Your task to perform on an android device: Where can I buy a nice beach hat? Image 0: 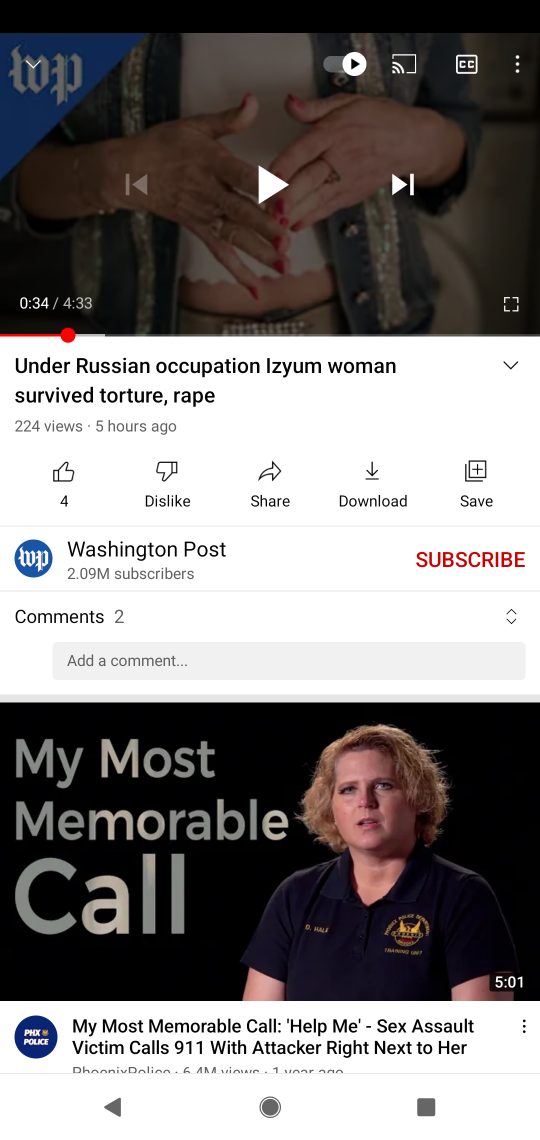
Step 0: press home button
Your task to perform on an android device: Where can I buy a nice beach hat? Image 1: 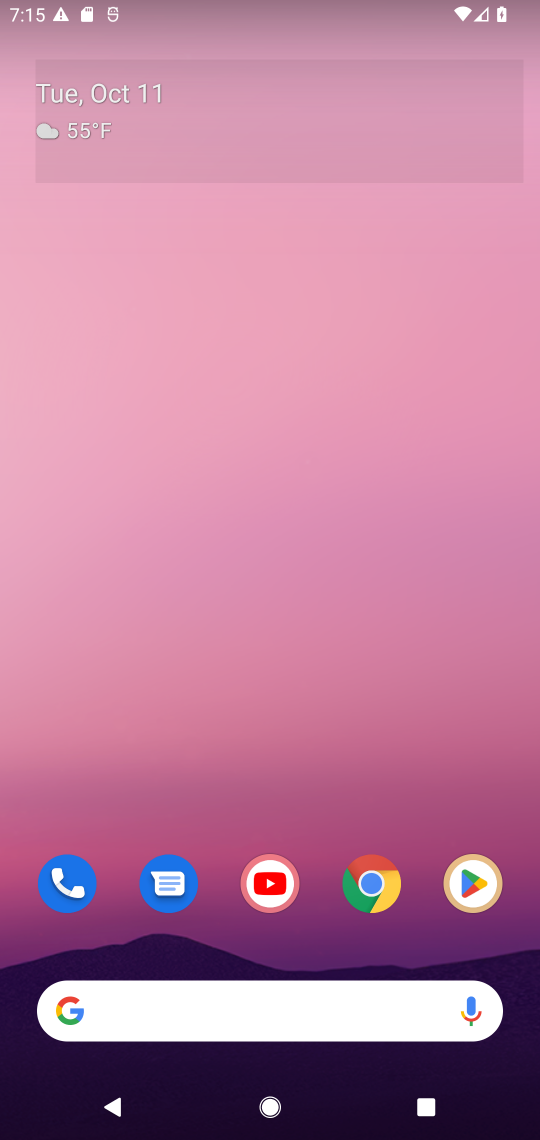
Step 1: drag from (316, 969) to (293, 70)
Your task to perform on an android device: Where can I buy a nice beach hat? Image 2: 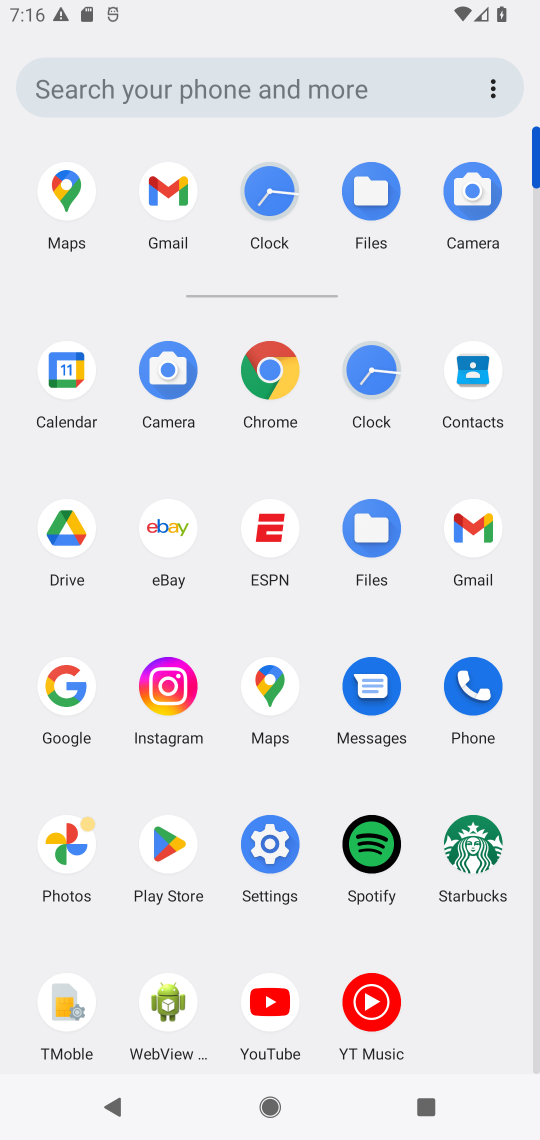
Step 2: click (261, 366)
Your task to perform on an android device: Where can I buy a nice beach hat? Image 3: 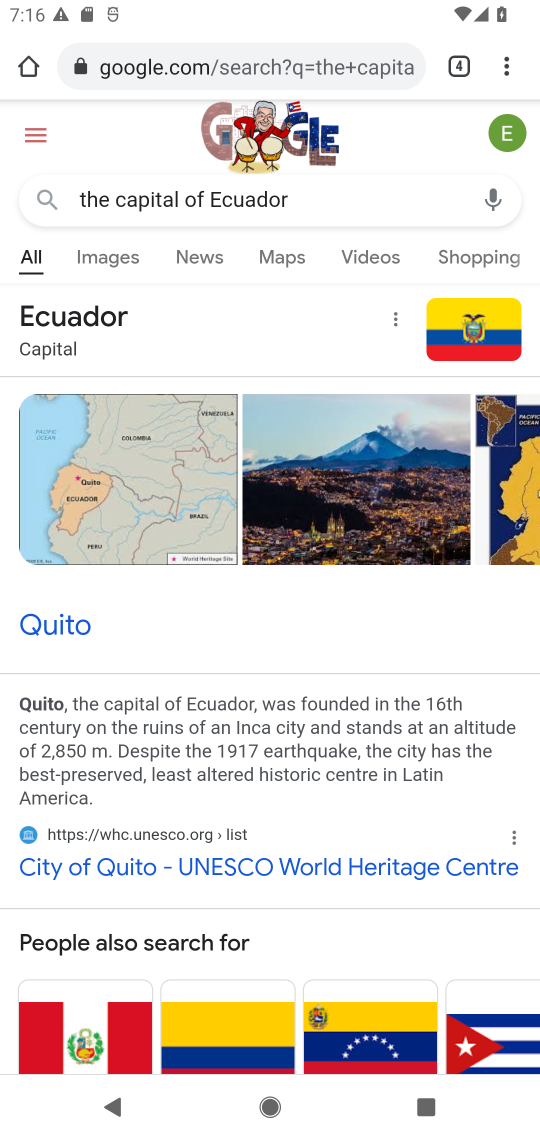
Step 3: click (270, 77)
Your task to perform on an android device: Where can I buy a nice beach hat? Image 4: 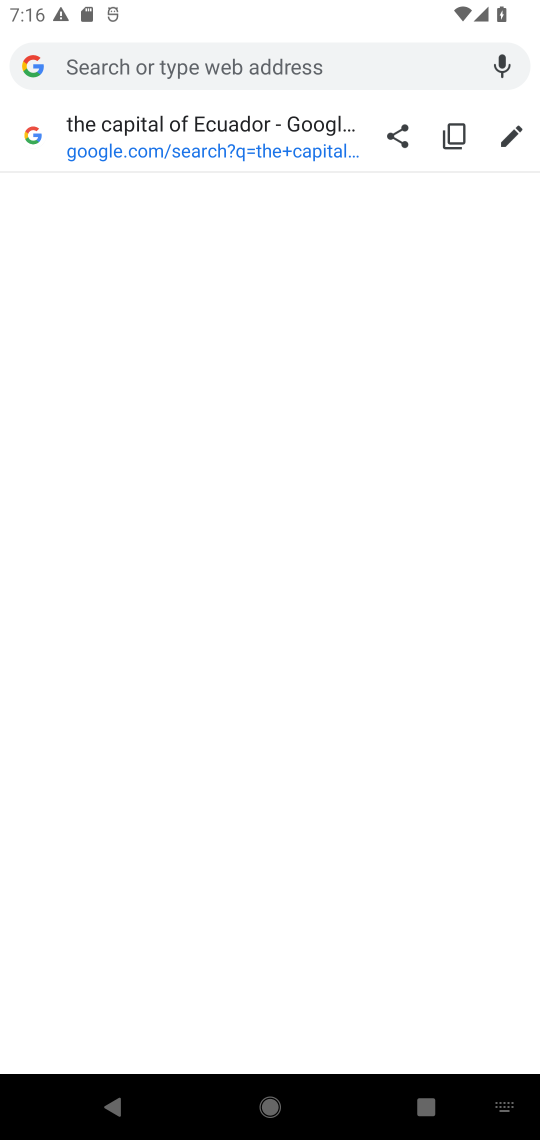
Step 4: type "Where can I buy a nice beach hat?"
Your task to perform on an android device: Where can I buy a nice beach hat? Image 5: 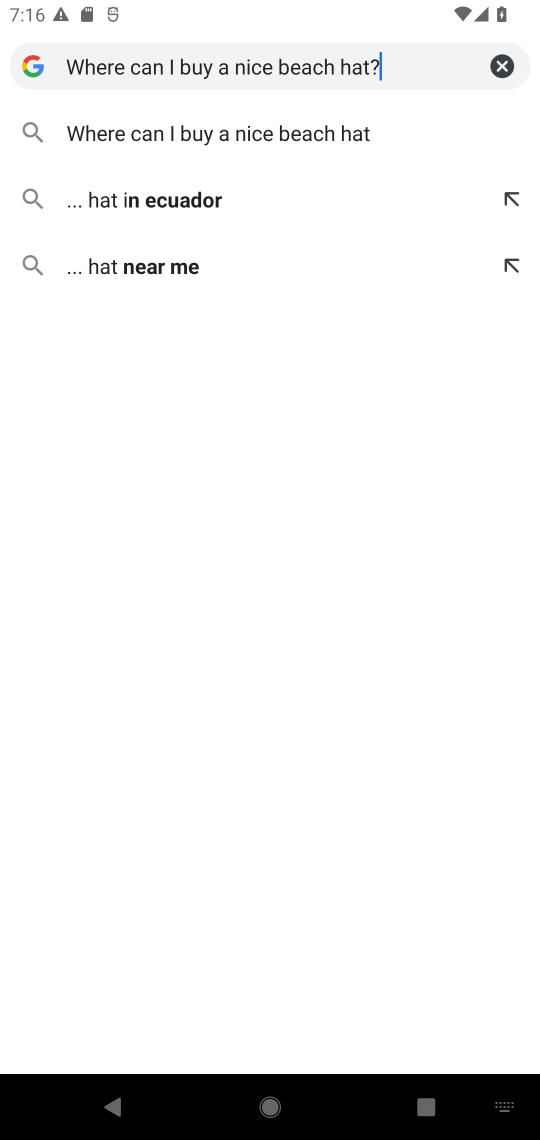
Step 5: press enter
Your task to perform on an android device: Where can I buy a nice beach hat? Image 6: 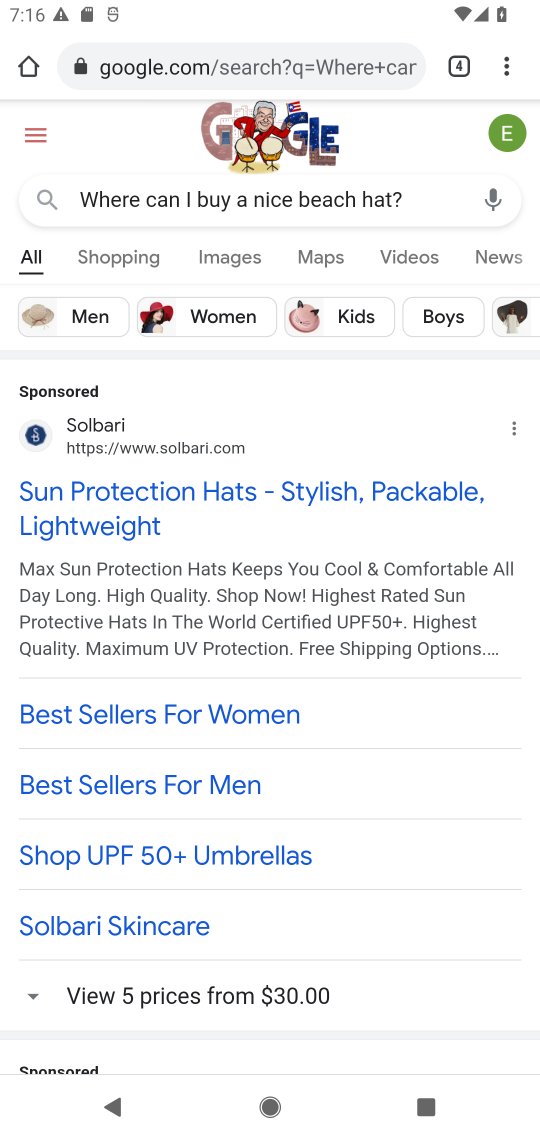
Step 6: task complete